Your task to perform on an android device: open a bookmark in the chrome app Image 0: 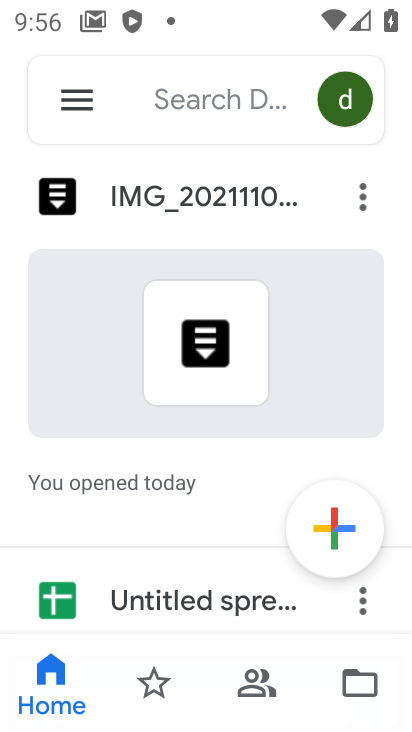
Step 0: press home button
Your task to perform on an android device: open a bookmark in the chrome app Image 1: 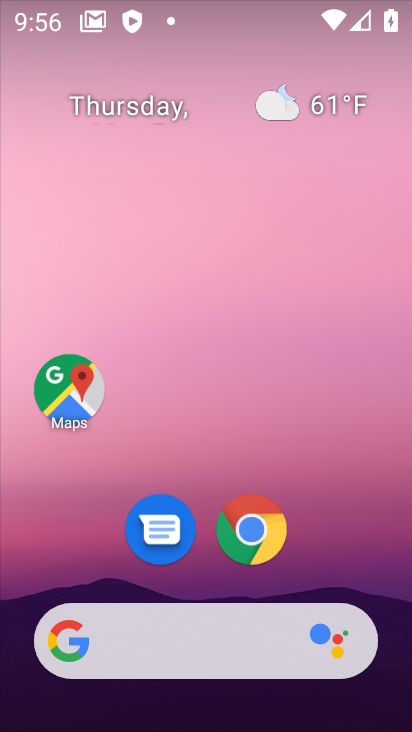
Step 1: click (258, 526)
Your task to perform on an android device: open a bookmark in the chrome app Image 2: 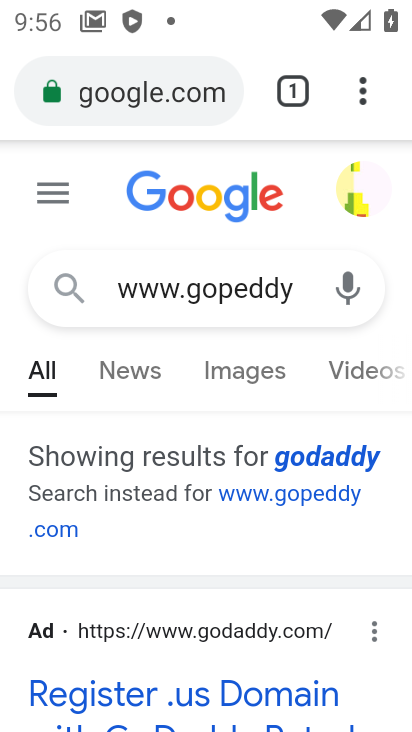
Step 2: click (354, 91)
Your task to perform on an android device: open a bookmark in the chrome app Image 3: 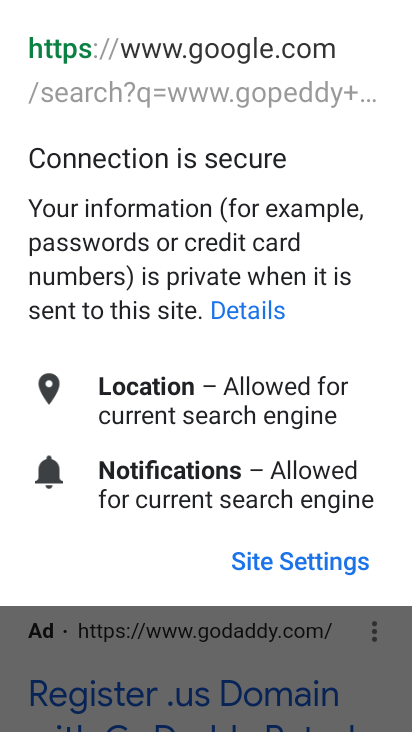
Step 3: click (283, 556)
Your task to perform on an android device: open a bookmark in the chrome app Image 4: 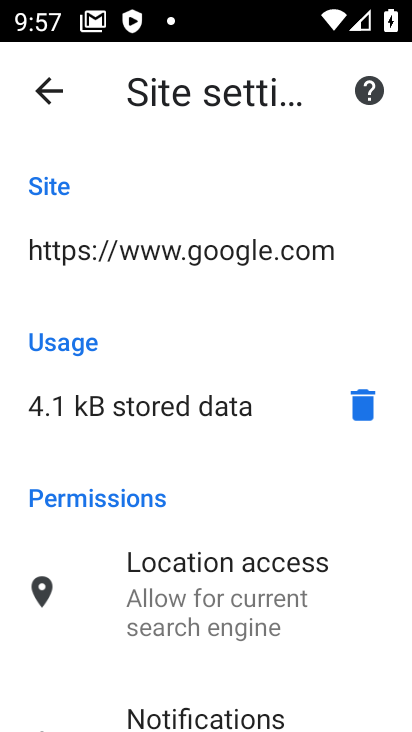
Step 4: drag from (320, 695) to (238, 338)
Your task to perform on an android device: open a bookmark in the chrome app Image 5: 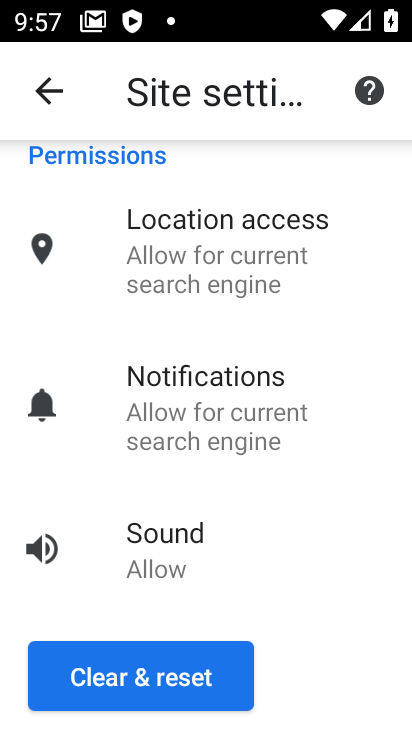
Step 5: click (198, 688)
Your task to perform on an android device: open a bookmark in the chrome app Image 6: 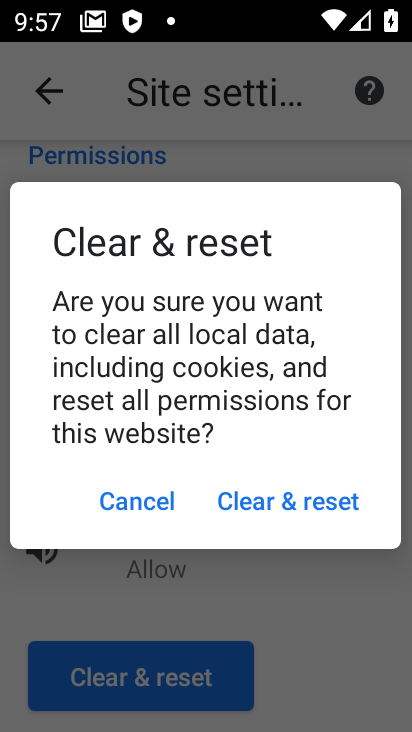
Step 6: click (249, 507)
Your task to perform on an android device: open a bookmark in the chrome app Image 7: 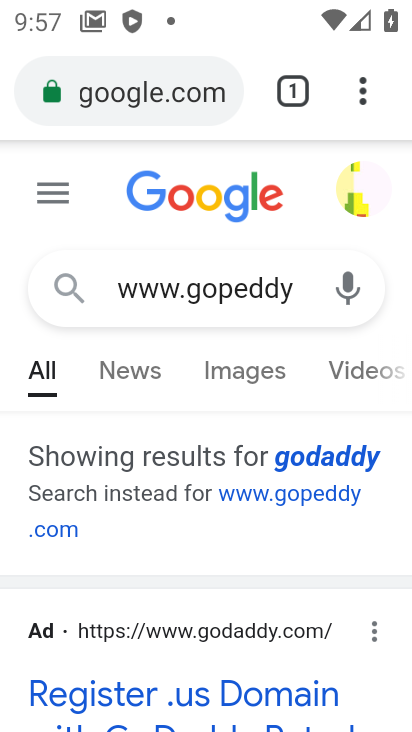
Step 7: click (360, 95)
Your task to perform on an android device: open a bookmark in the chrome app Image 8: 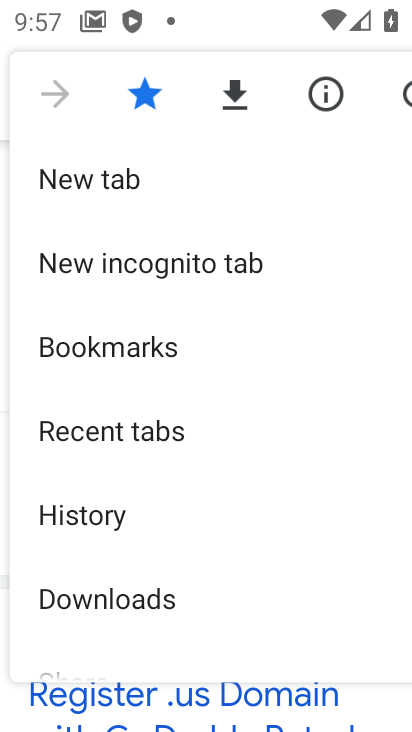
Step 8: click (98, 354)
Your task to perform on an android device: open a bookmark in the chrome app Image 9: 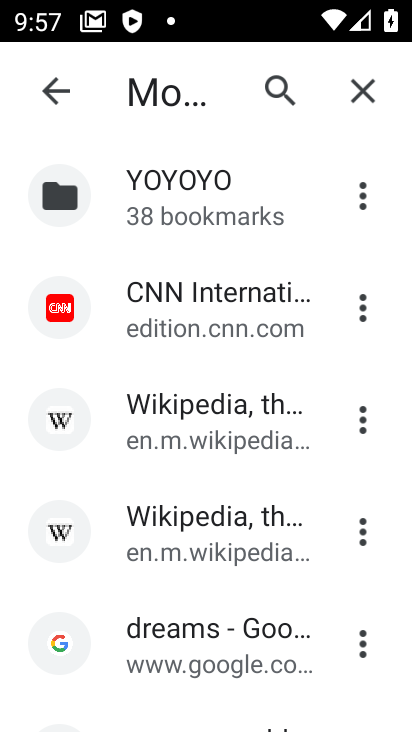
Step 9: click (192, 414)
Your task to perform on an android device: open a bookmark in the chrome app Image 10: 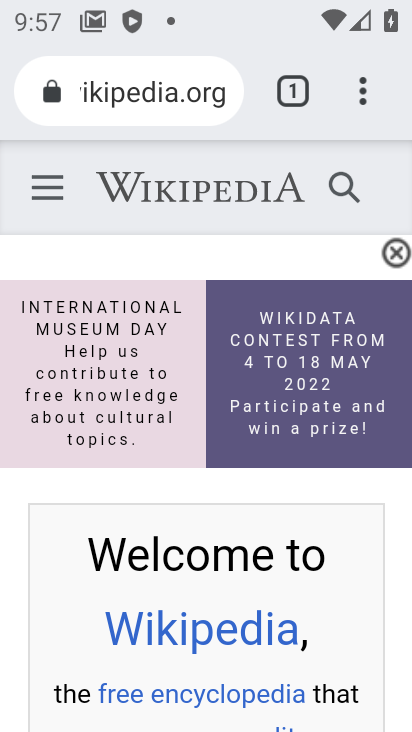
Step 10: task complete